Your task to perform on an android device: open a bookmark in the chrome app Image 0: 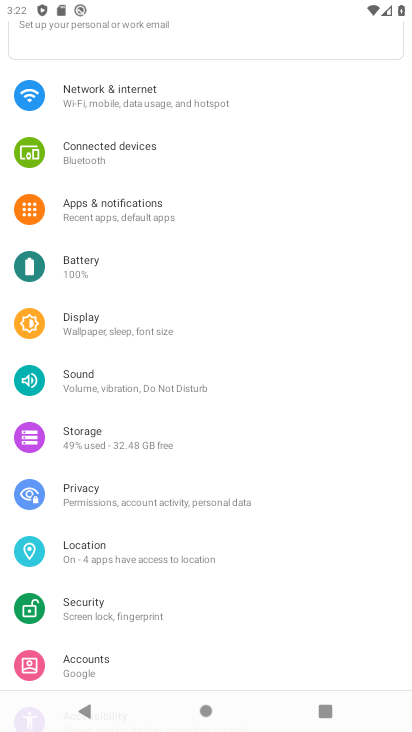
Step 0: press home button
Your task to perform on an android device: open a bookmark in the chrome app Image 1: 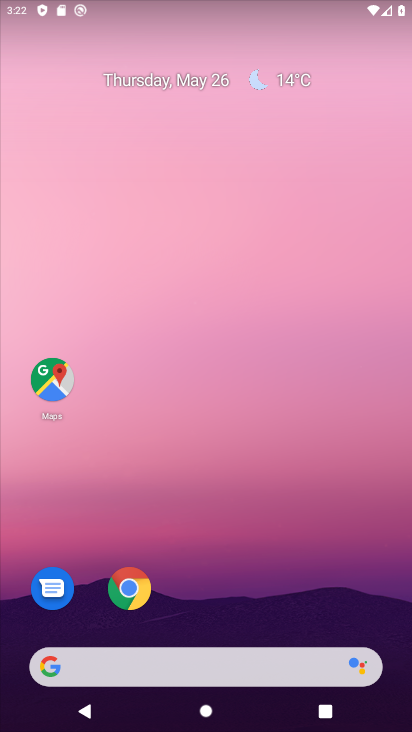
Step 1: click (135, 583)
Your task to perform on an android device: open a bookmark in the chrome app Image 2: 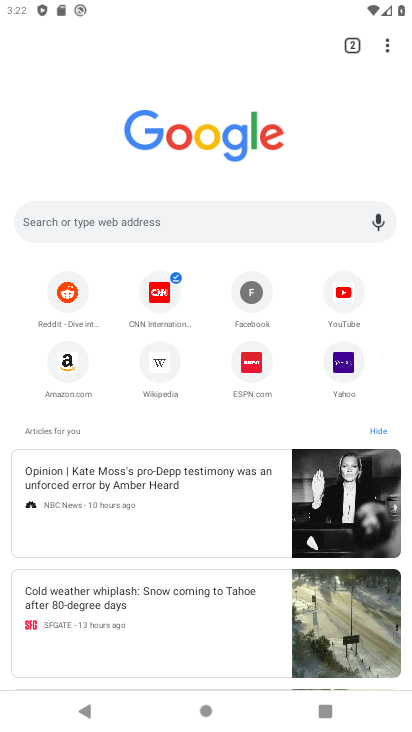
Step 2: click (386, 47)
Your task to perform on an android device: open a bookmark in the chrome app Image 3: 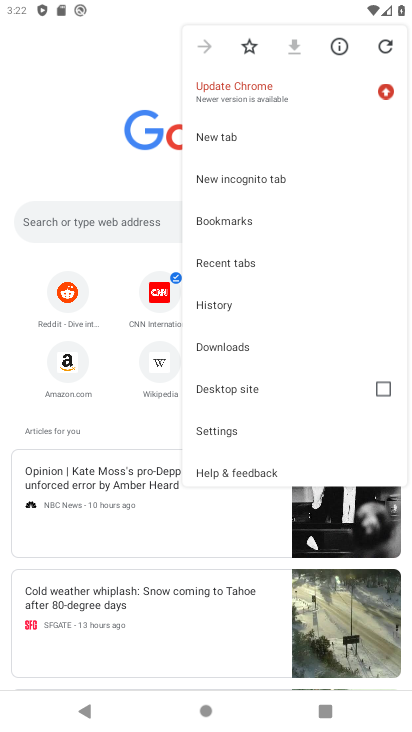
Step 3: click (238, 443)
Your task to perform on an android device: open a bookmark in the chrome app Image 4: 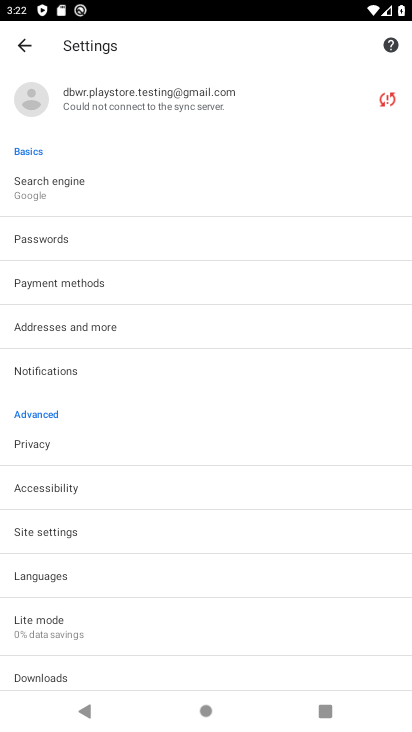
Step 4: click (13, 46)
Your task to perform on an android device: open a bookmark in the chrome app Image 5: 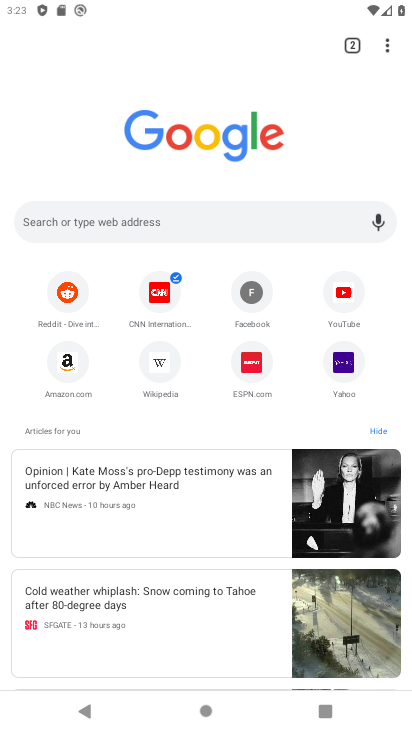
Step 5: click (385, 56)
Your task to perform on an android device: open a bookmark in the chrome app Image 6: 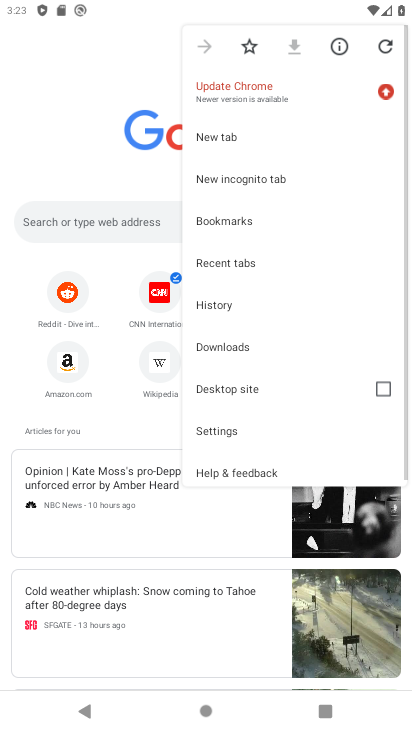
Step 6: click (281, 218)
Your task to perform on an android device: open a bookmark in the chrome app Image 7: 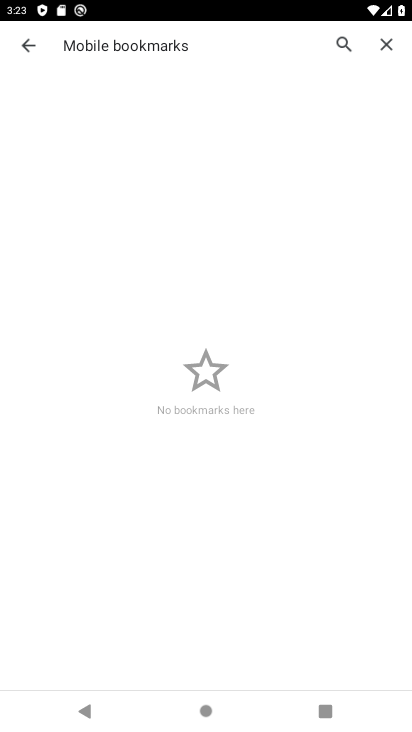
Step 7: task complete